Your task to perform on an android device: Add asus zenbook to the cart on target.com, then select checkout. Image 0: 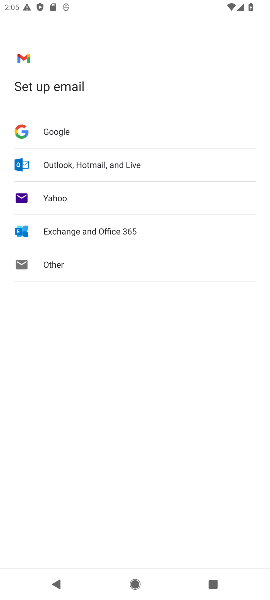
Step 0: press home button
Your task to perform on an android device: Add asus zenbook to the cart on target.com, then select checkout. Image 1: 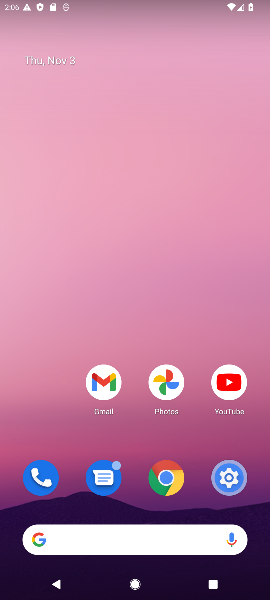
Step 1: click (166, 481)
Your task to perform on an android device: Add asus zenbook to the cart on target.com, then select checkout. Image 2: 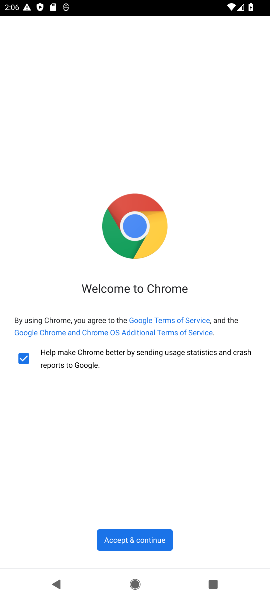
Step 2: click (137, 543)
Your task to perform on an android device: Add asus zenbook to the cart on target.com, then select checkout. Image 3: 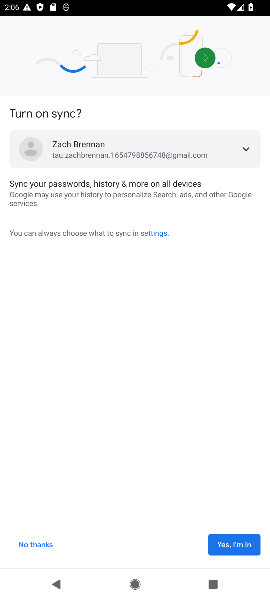
Step 3: click (230, 534)
Your task to perform on an android device: Add asus zenbook to the cart on target.com, then select checkout. Image 4: 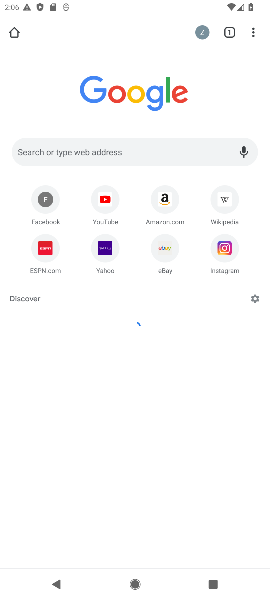
Step 4: click (53, 151)
Your task to perform on an android device: Add asus zenbook to the cart on target.com, then select checkout. Image 5: 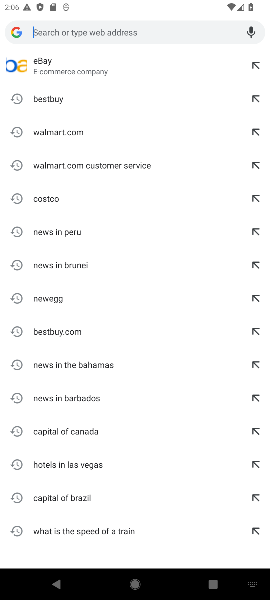
Step 5: type "target.com"
Your task to perform on an android device: Add asus zenbook to the cart on target.com, then select checkout. Image 6: 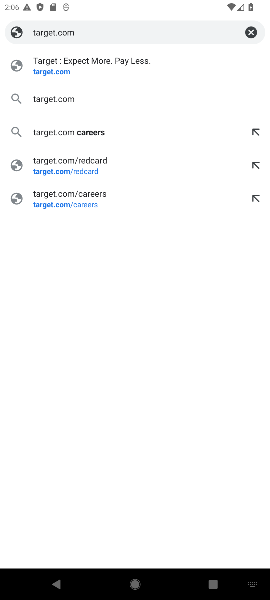
Step 6: click (41, 101)
Your task to perform on an android device: Add asus zenbook to the cart on target.com, then select checkout. Image 7: 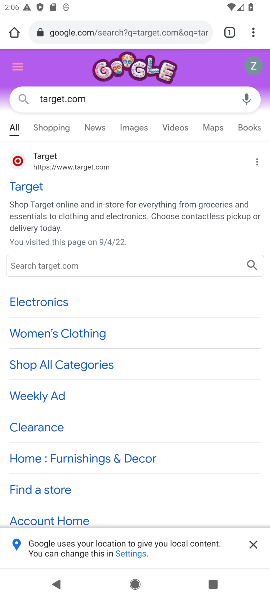
Step 7: click (36, 158)
Your task to perform on an android device: Add asus zenbook to the cart on target.com, then select checkout. Image 8: 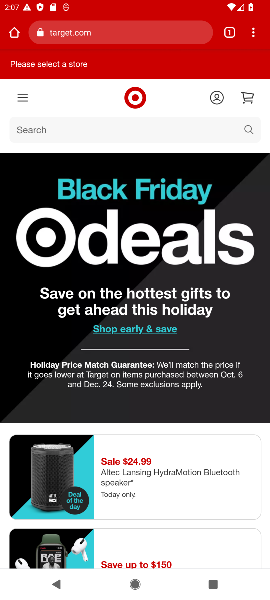
Step 8: click (249, 125)
Your task to perform on an android device: Add asus zenbook to the cart on target.com, then select checkout. Image 9: 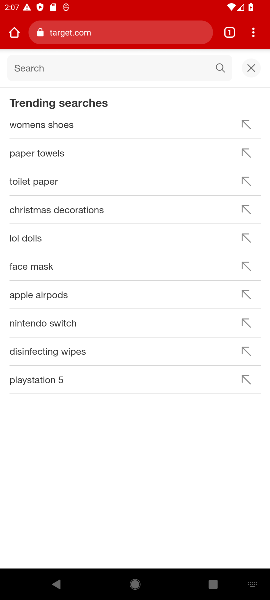
Step 9: type "asus zenbook"
Your task to perform on an android device: Add asus zenbook to the cart on target.com, then select checkout. Image 10: 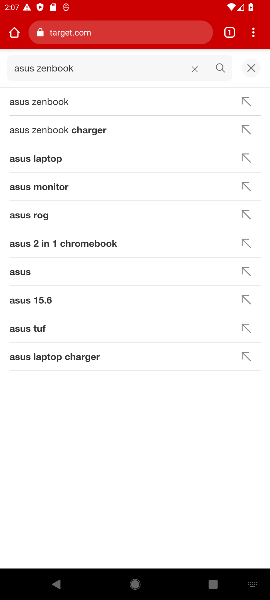
Step 10: click (18, 101)
Your task to perform on an android device: Add asus zenbook to the cart on target.com, then select checkout. Image 11: 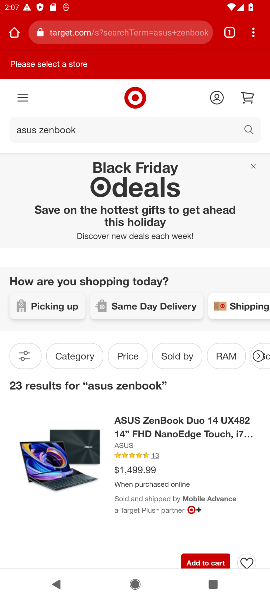
Step 11: drag from (140, 457) to (130, 305)
Your task to perform on an android device: Add asus zenbook to the cart on target.com, then select checkout. Image 12: 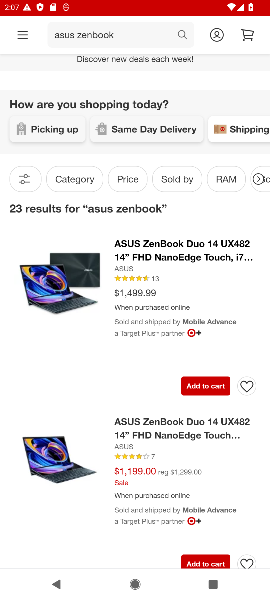
Step 12: click (116, 295)
Your task to perform on an android device: Add asus zenbook to the cart on target.com, then select checkout. Image 13: 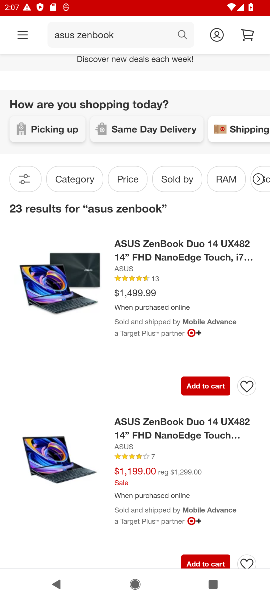
Step 13: click (60, 291)
Your task to perform on an android device: Add asus zenbook to the cart on target.com, then select checkout. Image 14: 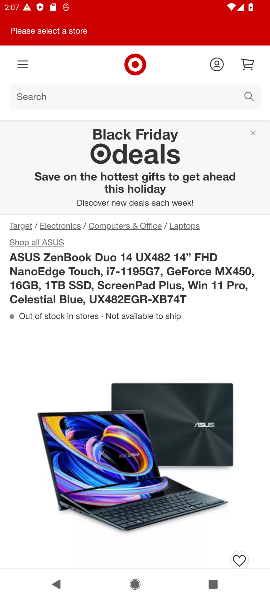
Step 14: drag from (117, 372) to (110, 96)
Your task to perform on an android device: Add asus zenbook to the cart on target.com, then select checkout. Image 15: 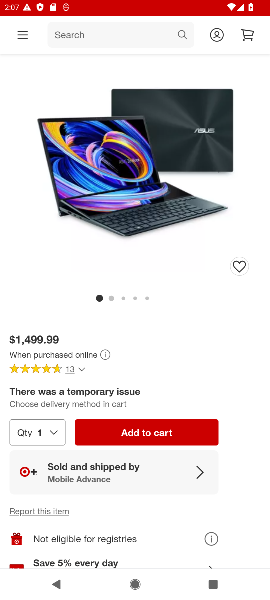
Step 15: click (139, 433)
Your task to perform on an android device: Add asus zenbook to the cart on target.com, then select checkout. Image 16: 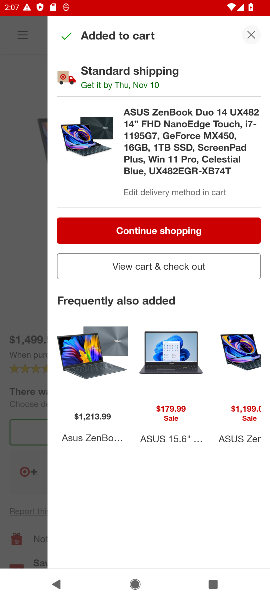
Step 16: click (167, 265)
Your task to perform on an android device: Add asus zenbook to the cart on target.com, then select checkout. Image 17: 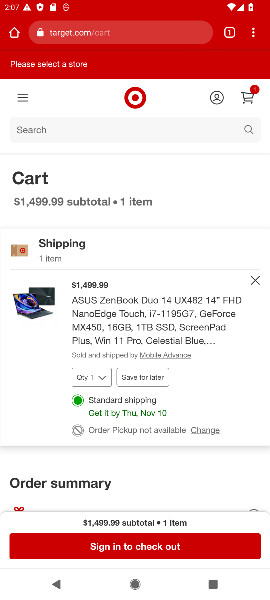
Step 17: click (107, 548)
Your task to perform on an android device: Add asus zenbook to the cart on target.com, then select checkout. Image 18: 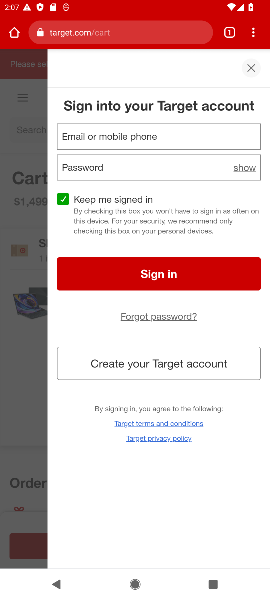
Step 18: task complete